Your task to perform on an android device: Go to battery settings Image 0: 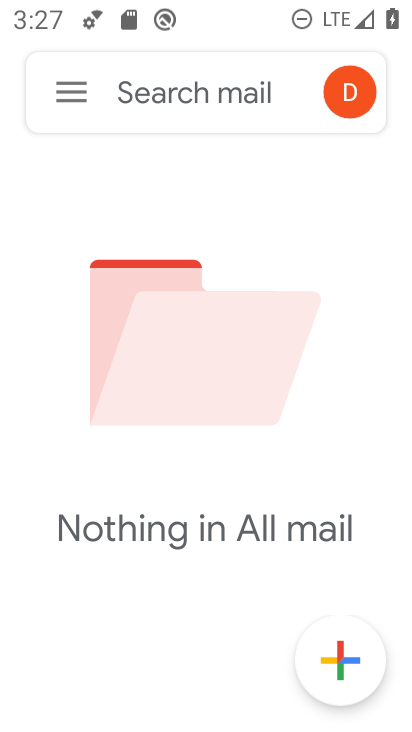
Step 0: press home button
Your task to perform on an android device: Go to battery settings Image 1: 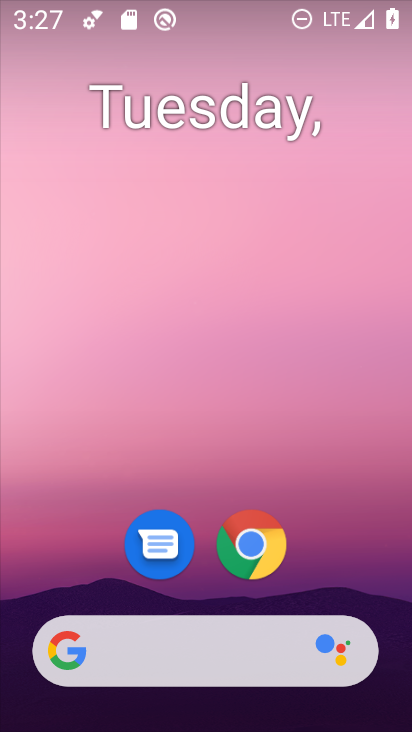
Step 1: drag from (377, 580) to (342, 183)
Your task to perform on an android device: Go to battery settings Image 2: 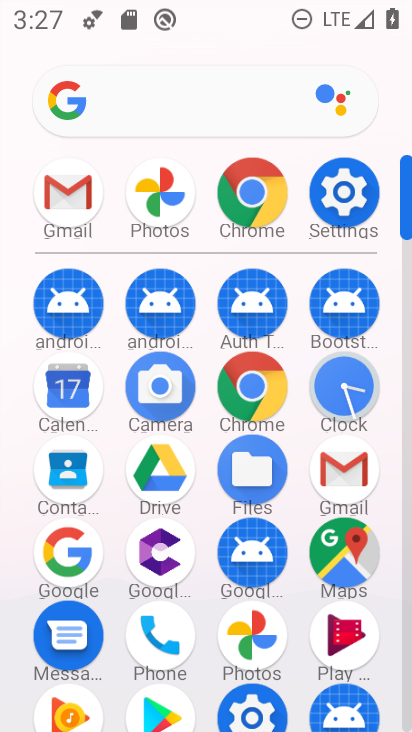
Step 2: click (362, 207)
Your task to perform on an android device: Go to battery settings Image 3: 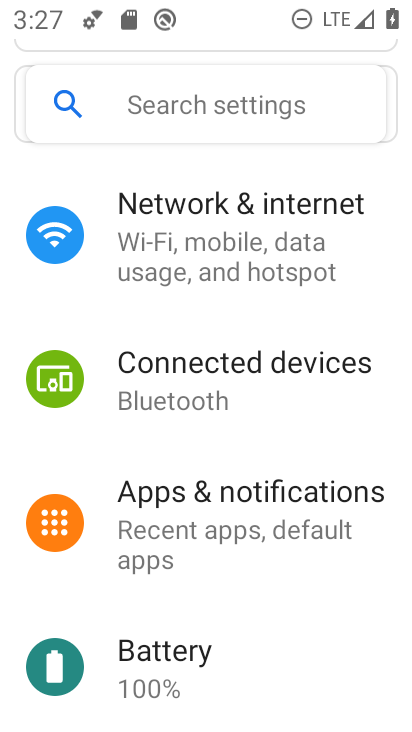
Step 3: drag from (377, 272) to (374, 422)
Your task to perform on an android device: Go to battery settings Image 4: 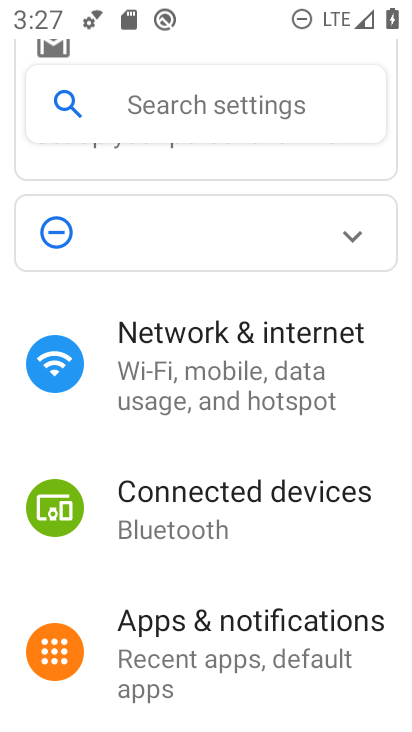
Step 4: drag from (368, 545) to (368, 409)
Your task to perform on an android device: Go to battery settings Image 5: 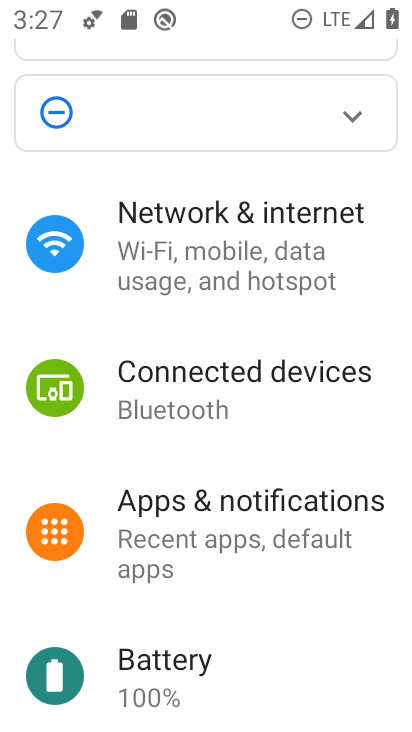
Step 5: drag from (365, 614) to (367, 472)
Your task to perform on an android device: Go to battery settings Image 6: 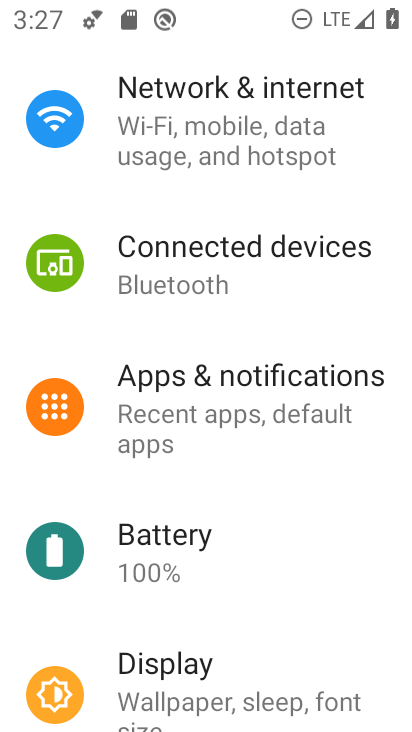
Step 6: drag from (350, 613) to (356, 474)
Your task to perform on an android device: Go to battery settings Image 7: 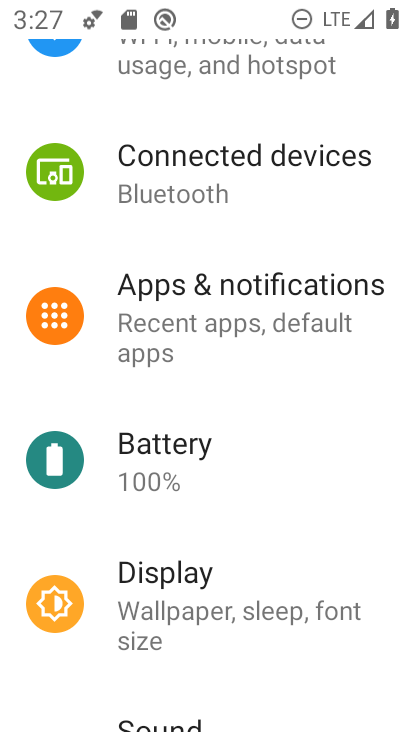
Step 7: drag from (326, 660) to (333, 532)
Your task to perform on an android device: Go to battery settings Image 8: 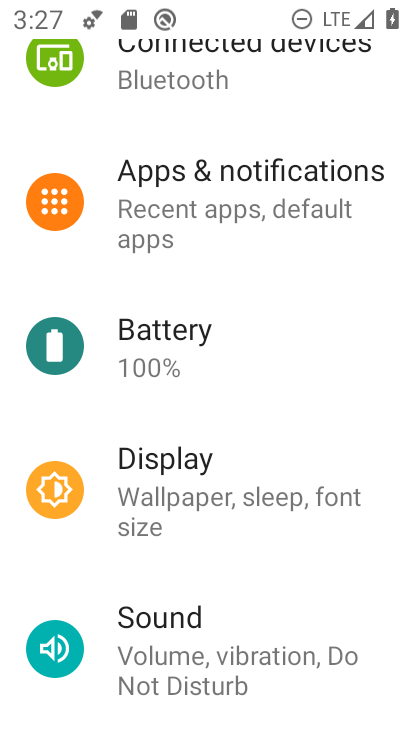
Step 8: drag from (322, 703) to (323, 568)
Your task to perform on an android device: Go to battery settings Image 9: 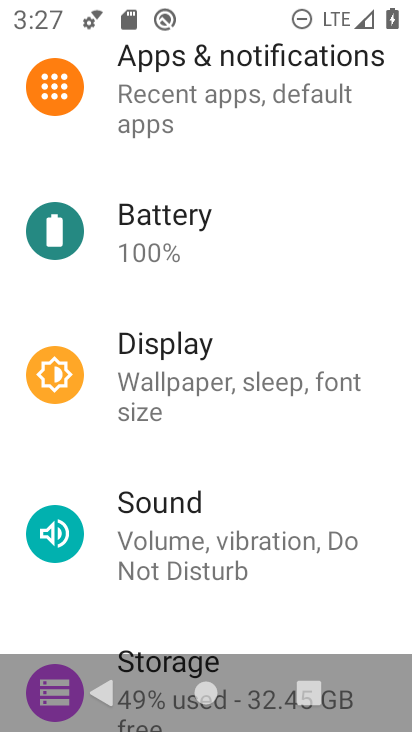
Step 9: drag from (331, 632) to (333, 521)
Your task to perform on an android device: Go to battery settings Image 10: 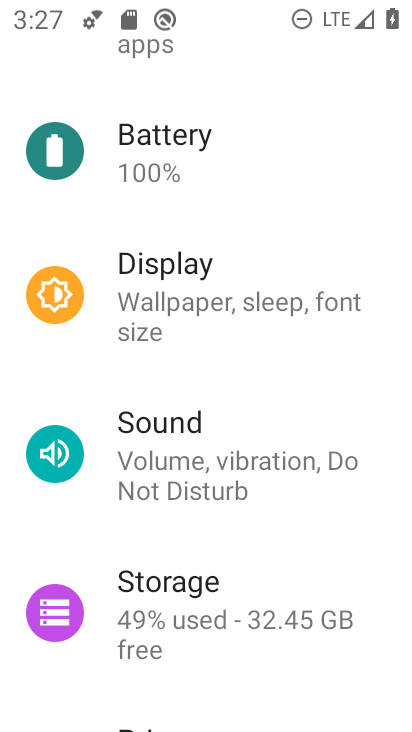
Step 10: drag from (329, 653) to (344, 537)
Your task to perform on an android device: Go to battery settings Image 11: 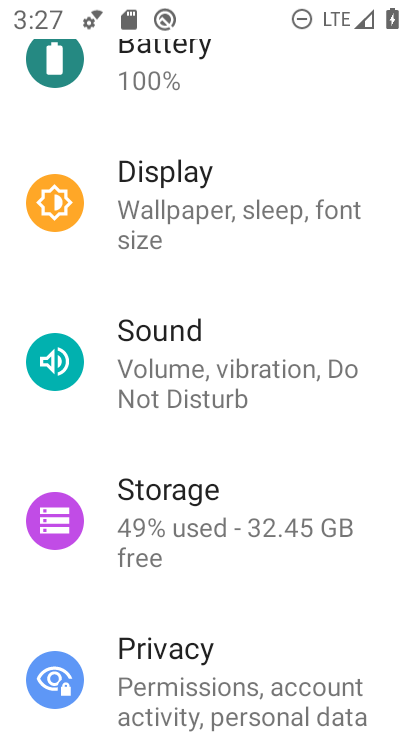
Step 11: drag from (355, 640) to (363, 503)
Your task to perform on an android device: Go to battery settings Image 12: 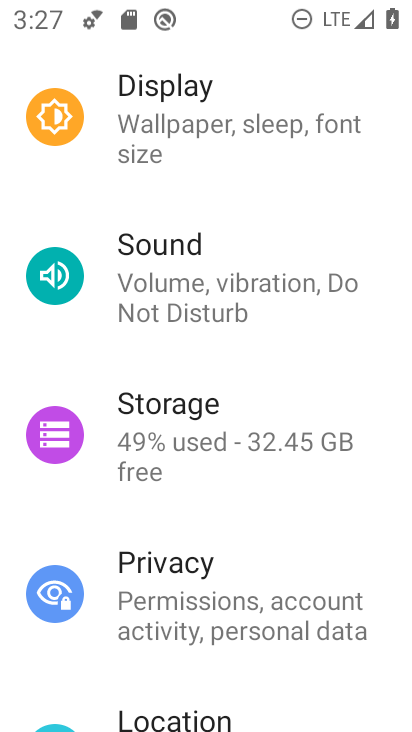
Step 12: drag from (360, 684) to (372, 550)
Your task to perform on an android device: Go to battery settings Image 13: 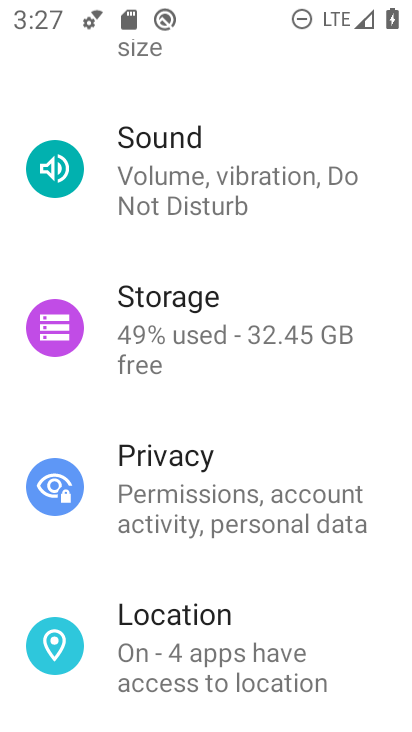
Step 13: drag from (353, 696) to (355, 571)
Your task to perform on an android device: Go to battery settings Image 14: 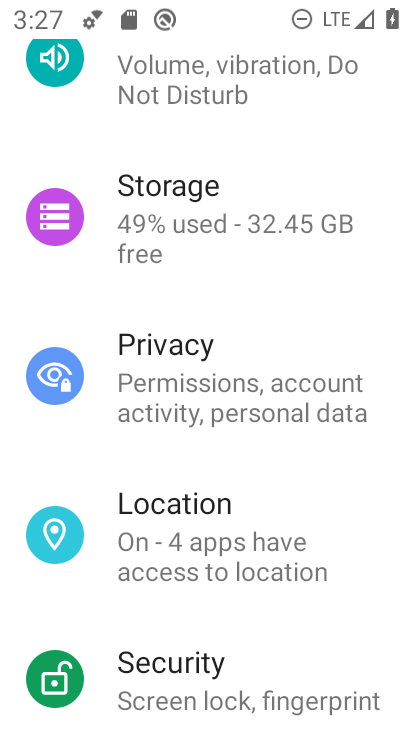
Step 14: drag from (347, 670) to (369, 530)
Your task to perform on an android device: Go to battery settings Image 15: 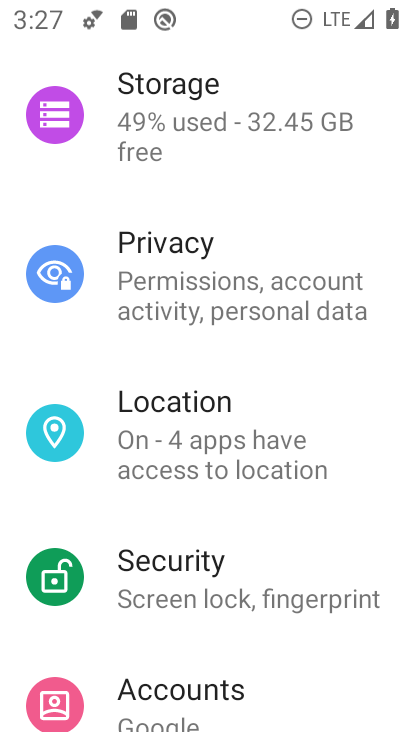
Step 15: drag from (353, 676) to (357, 559)
Your task to perform on an android device: Go to battery settings Image 16: 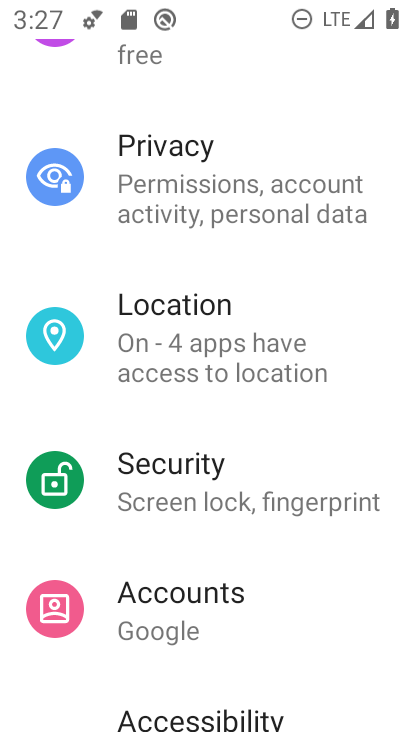
Step 16: drag from (323, 686) to (338, 567)
Your task to perform on an android device: Go to battery settings Image 17: 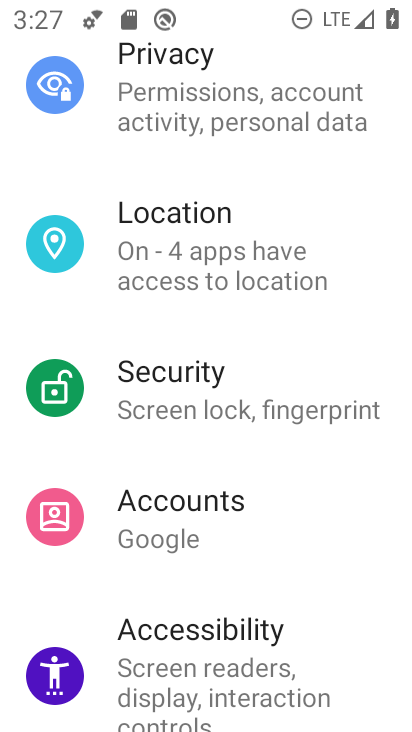
Step 17: drag from (348, 701) to (361, 546)
Your task to perform on an android device: Go to battery settings Image 18: 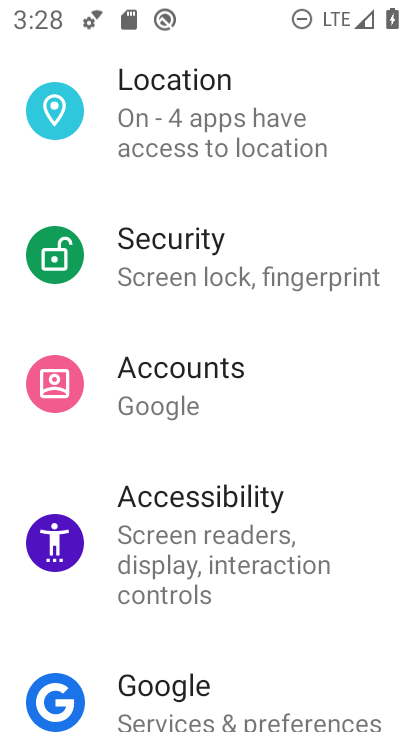
Step 18: drag from (343, 361) to (347, 481)
Your task to perform on an android device: Go to battery settings Image 19: 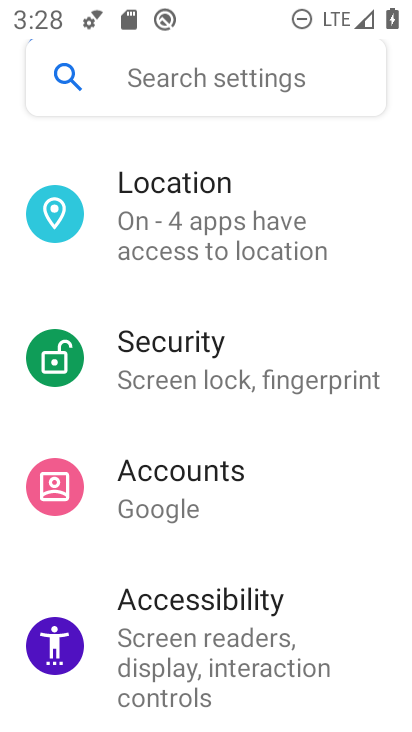
Step 19: drag from (344, 340) to (332, 478)
Your task to perform on an android device: Go to battery settings Image 20: 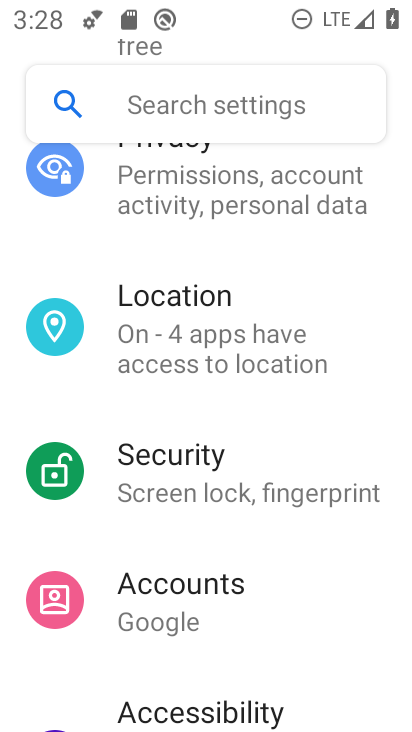
Step 20: drag from (344, 312) to (344, 450)
Your task to perform on an android device: Go to battery settings Image 21: 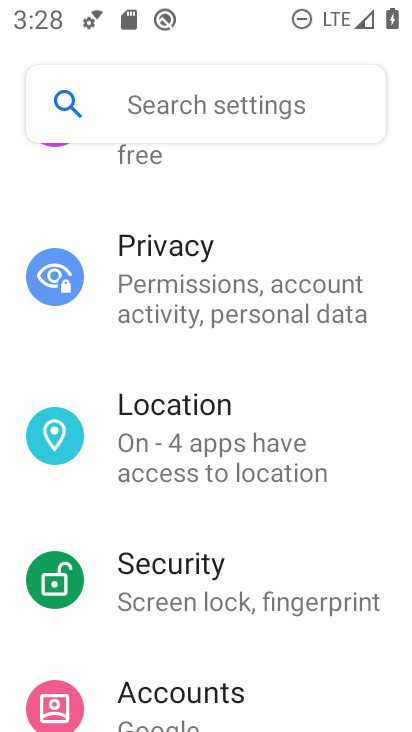
Step 21: drag from (375, 238) to (366, 389)
Your task to perform on an android device: Go to battery settings Image 22: 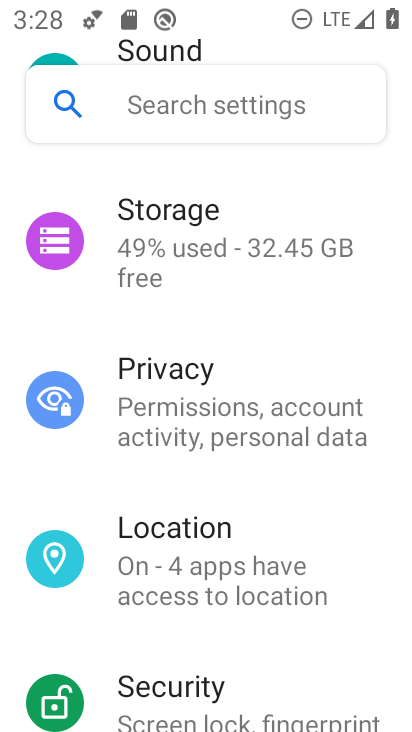
Step 22: drag from (369, 227) to (366, 356)
Your task to perform on an android device: Go to battery settings Image 23: 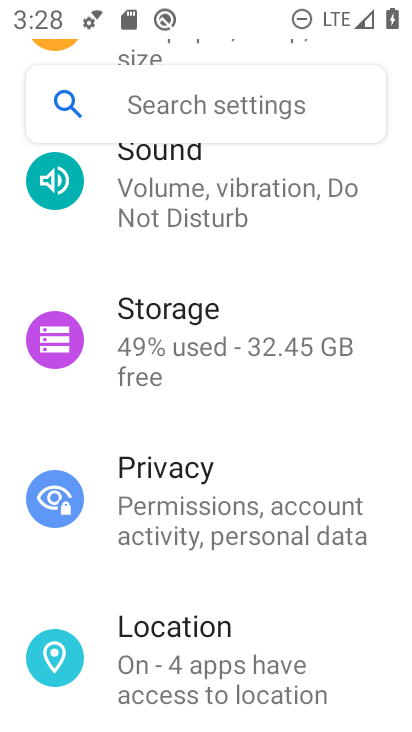
Step 23: drag from (353, 228) to (353, 345)
Your task to perform on an android device: Go to battery settings Image 24: 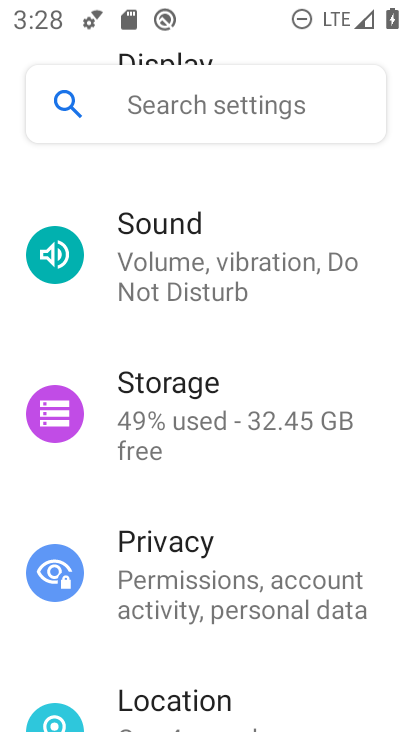
Step 24: drag from (339, 202) to (340, 358)
Your task to perform on an android device: Go to battery settings Image 25: 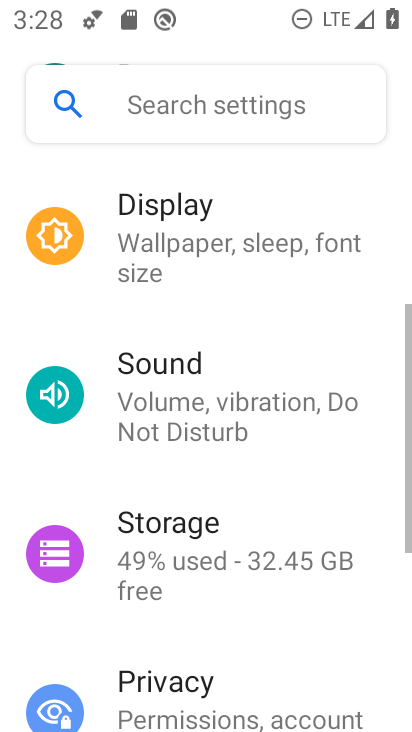
Step 25: drag from (355, 183) to (346, 341)
Your task to perform on an android device: Go to battery settings Image 26: 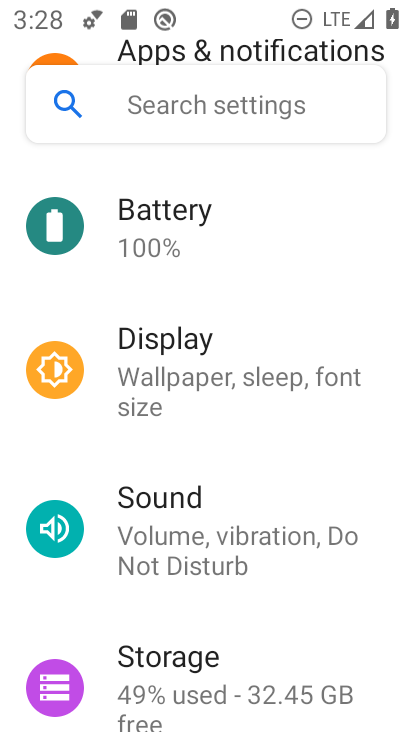
Step 26: drag from (280, 192) to (284, 286)
Your task to perform on an android device: Go to battery settings Image 27: 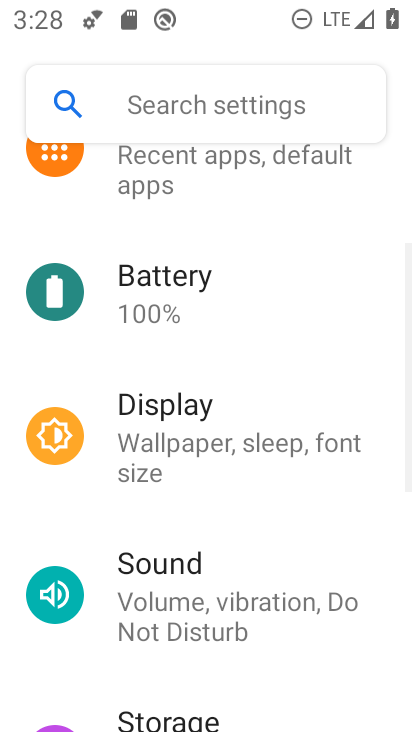
Step 27: click (169, 322)
Your task to perform on an android device: Go to battery settings Image 28: 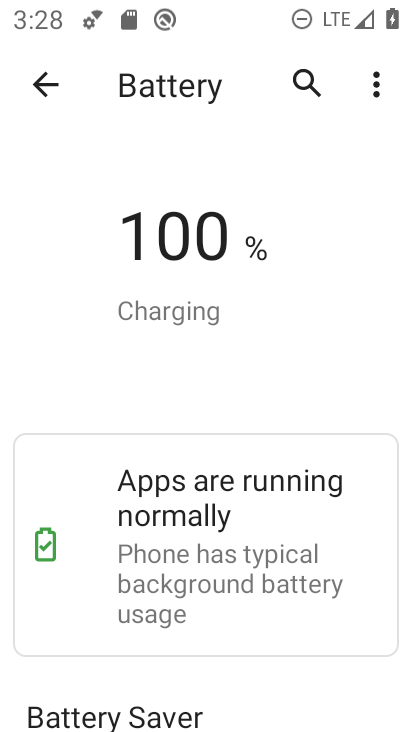
Step 28: task complete